Your task to perform on an android device: Show me productivity apps on the Play Store Image 0: 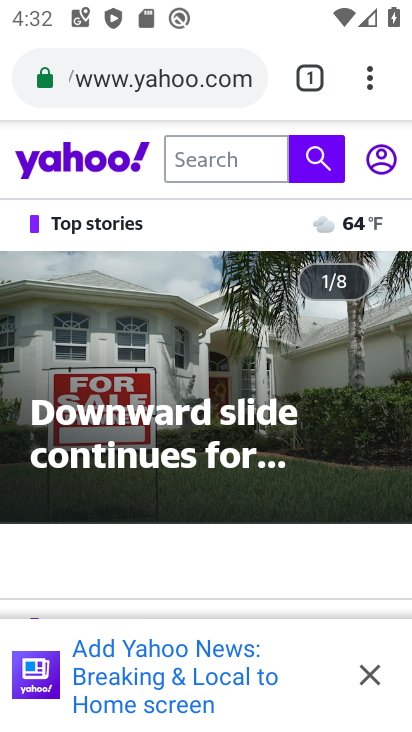
Step 0: press home button
Your task to perform on an android device: Show me productivity apps on the Play Store Image 1: 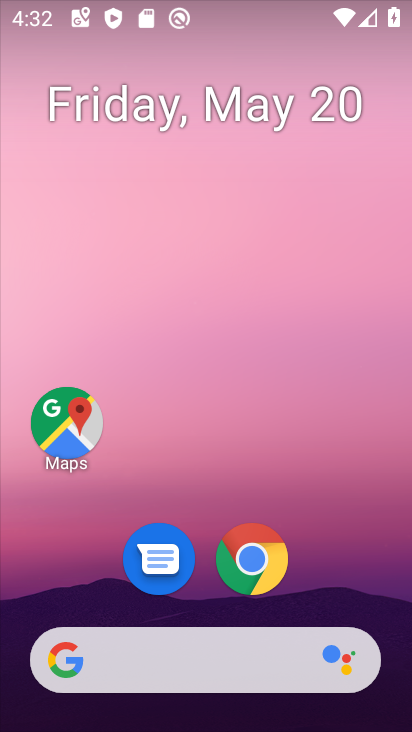
Step 1: drag from (218, 624) to (220, 208)
Your task to perform on an android device: Show me productivity apps on the Play Store Image 2: 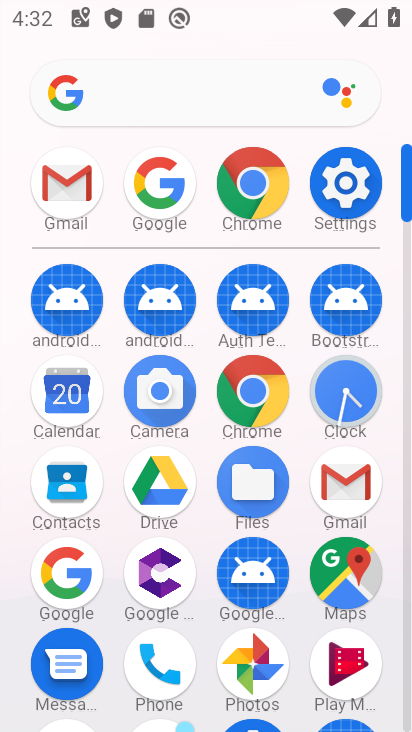
Step 2: drag from (209, 632) to (208, 179)
Your task to perform on an android device: Show me productivity apps on the Play Store Image 3: 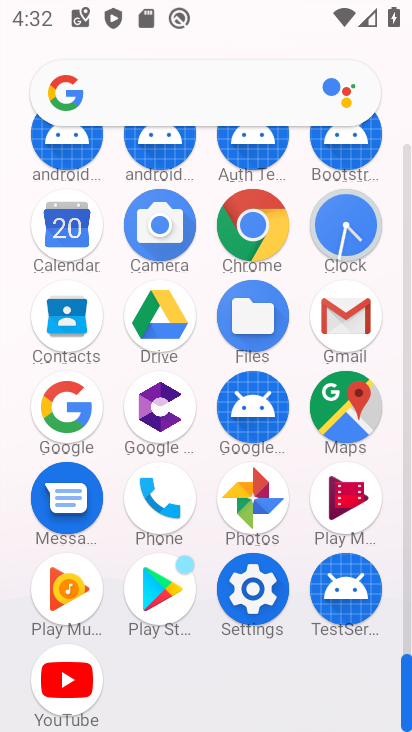
Step 3: click (158, 606)
Your task to perform on an android device: Show me productivity apps on the Play Store Image 4: 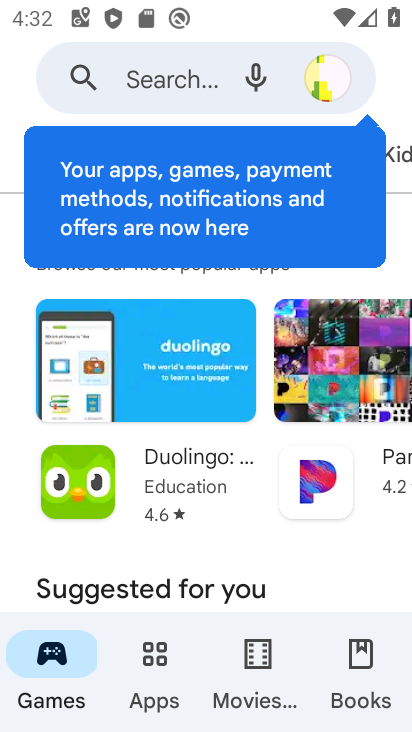
Step 4: click (158, 654)
Your task to perform on an android device: Show me productivity apps on the Play Store Image 5: 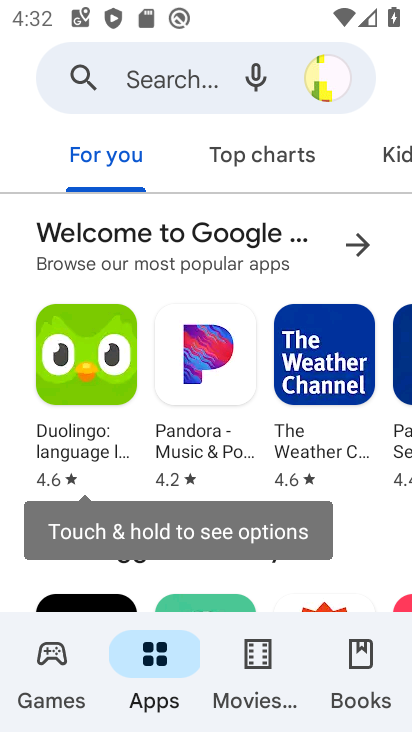
Step 5: task complete